Your task to perform on an android device: toggle priority inbox in the gmail app Image 0: 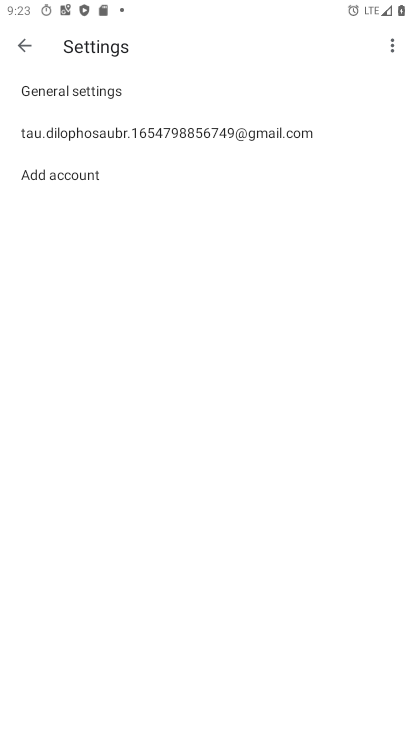
Step 0: click (81, 131)
Your task to perform on an android device: toggle priority inbox in the gmail app Image 1: 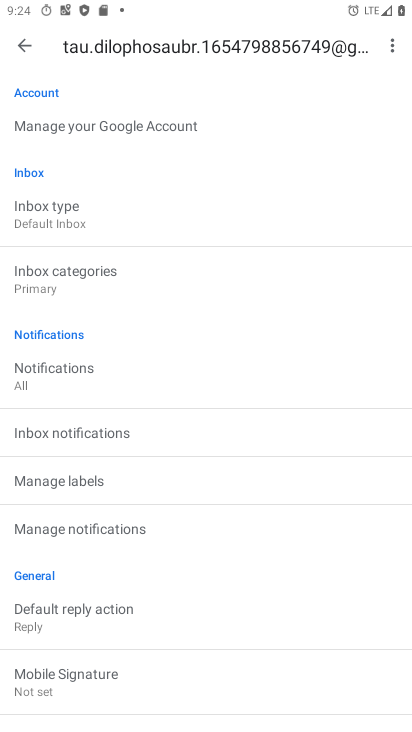
Step 1: click (45, 214)
Your task to perform on an android device: toggle priority inbox in the gmail app Image 2: 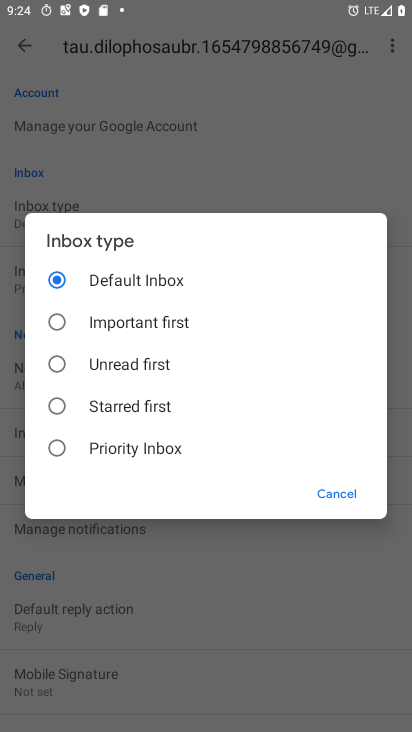
Step 2: click (53, 443)
Your task to perform on an android device: toggle priority inbox in the gmail app Image 3: 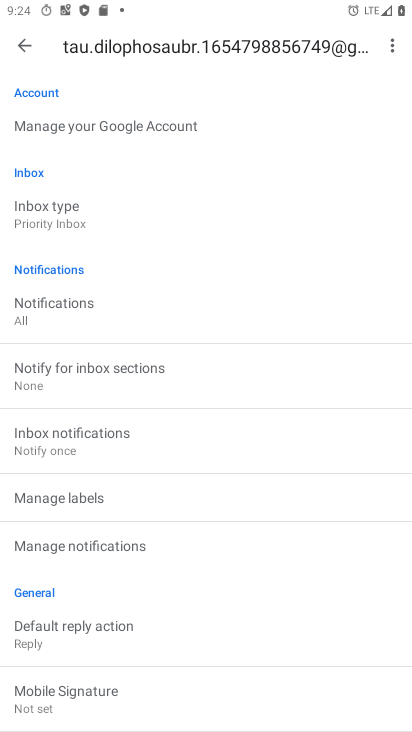
Step 3: task complete